Your task to perform on an android device: open a bookmark in the chrome app Image 0: 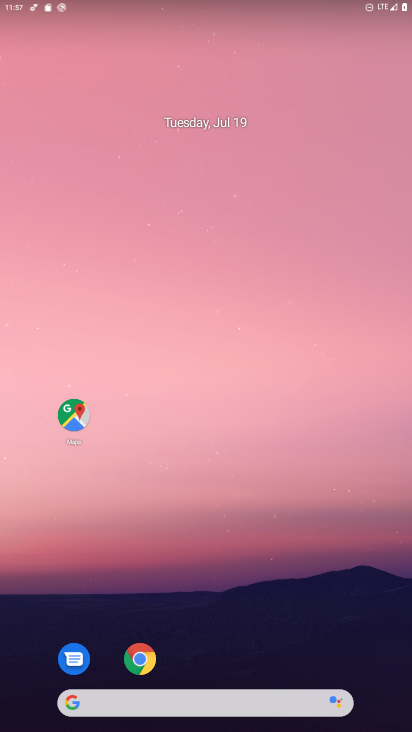
Step 0: drag from (254, 651) to (245, 157)
Your task to perform on an android device: open a bookmark in the chrome app Image 1: 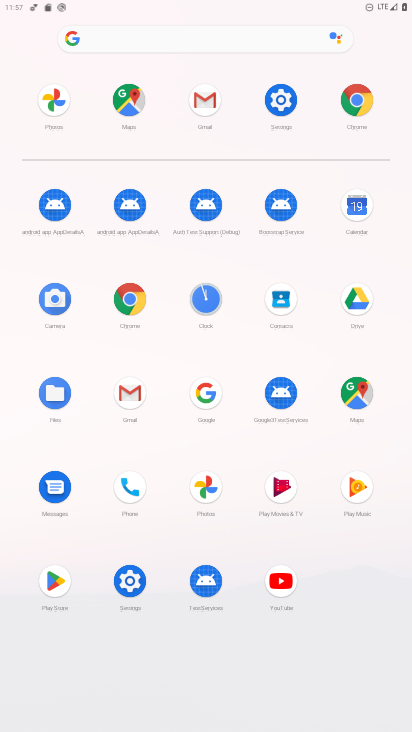
Step 1: click (127, 300)
Your task to perform on an android device: open a bookmark in the chrome app Image 2: 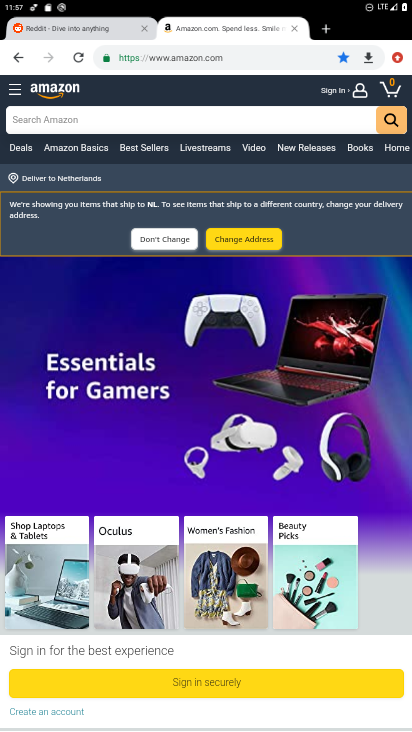
Step 2: drag from (406, 48) to (314, 159)
Your task to perform on an android device: open a bookmark in the chrome app Image 3: 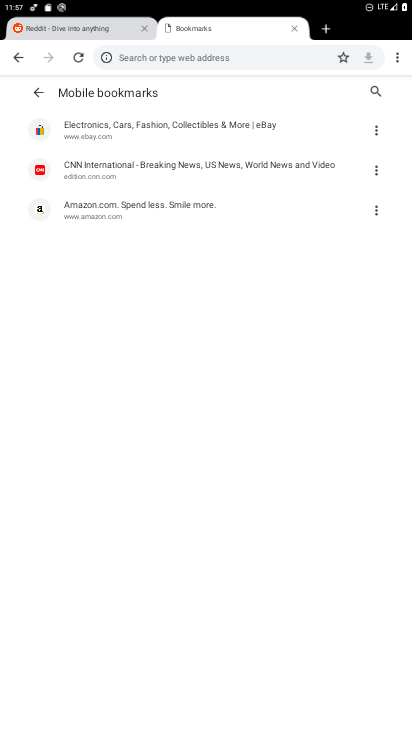
Step 3: click (98, 210)
Your task to perform on an android device: open a bookmark in the chrome app Image 4: 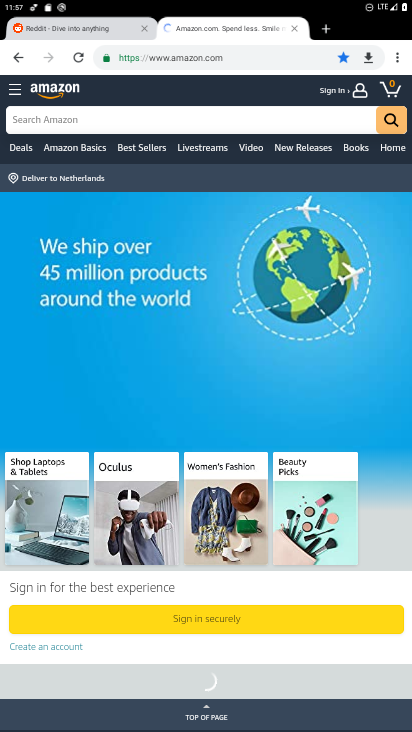
Step 4: task complete